Your task to perform on an android device: turn off wifi Image 0: 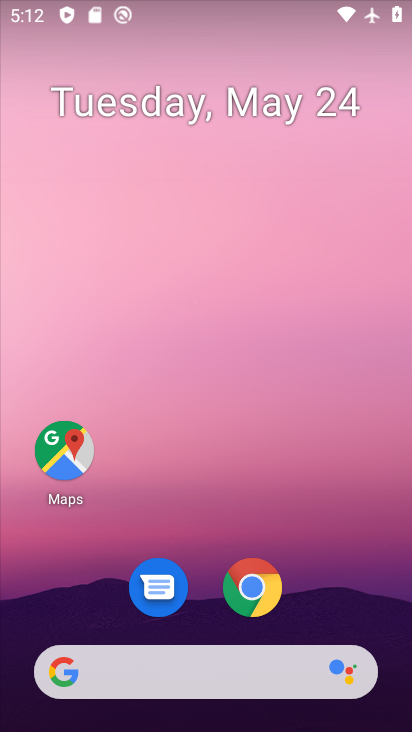
Step 0: drag from (343, 499) to (239, 27)
Your task to perform on an android device: turn off wifi Image 1: 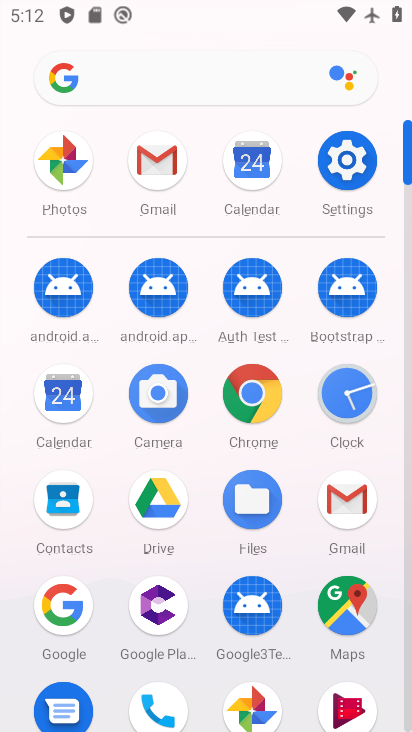
Step 1: click (340, 170)
Your task to perform on an android device: turn off wifi Image 2: 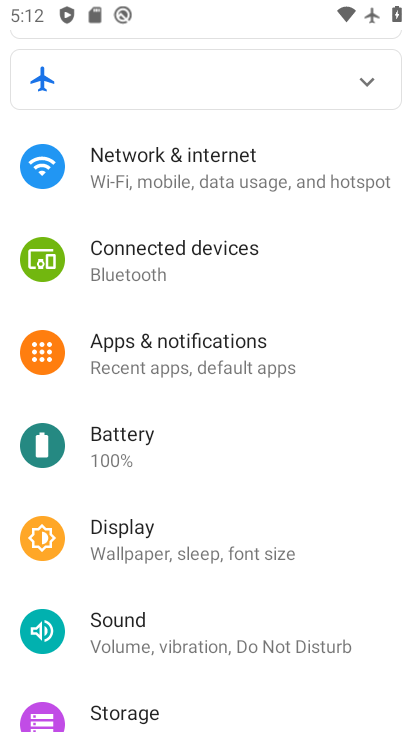
Step 2: click (216, 176)
Your task to perform on an android device: turn off wifi Image 3: 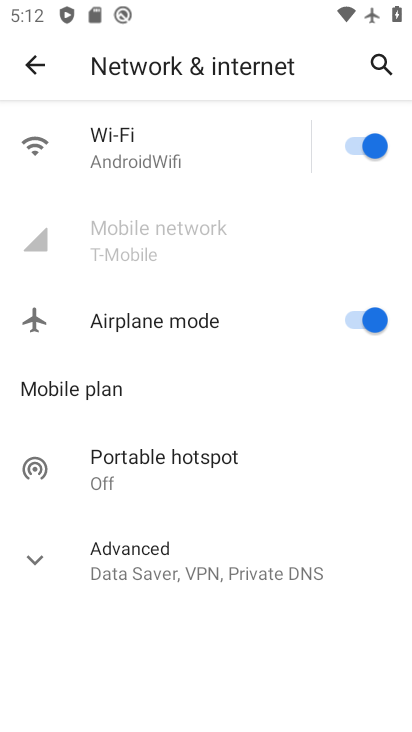
Step 3: click (244, 151)
Your task to perform on an android device: turn off wifi Image 4: 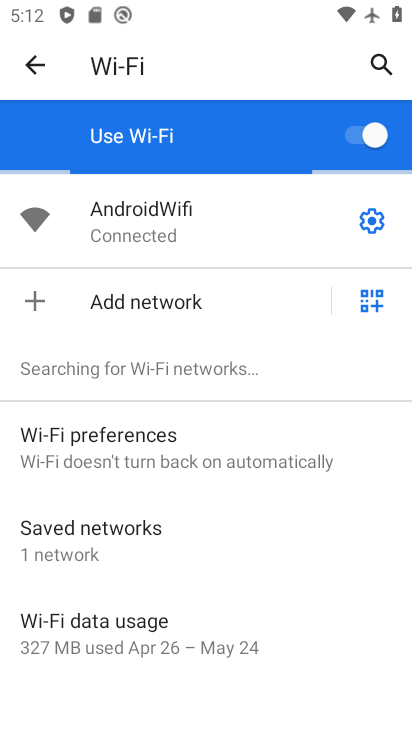
Step 4: click (372, 131)
Your task to perform on an android device: turn off wifi Image 5: 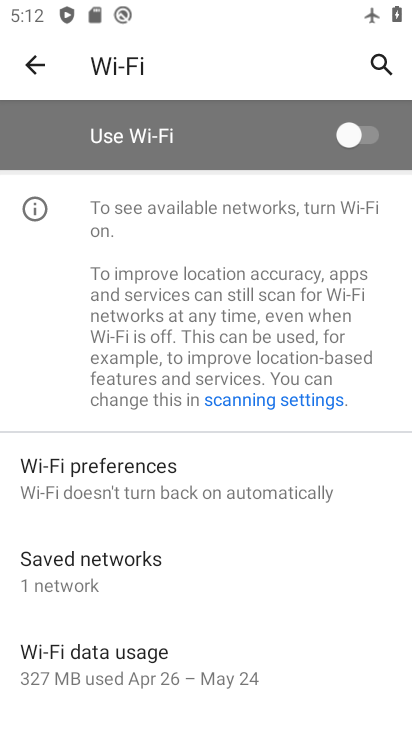
Step 5: task complete